Your task to perform on an android device: turn off airplane mode Image 0: 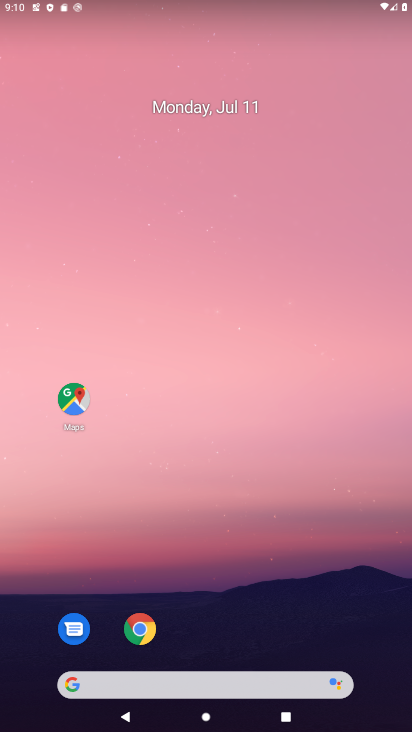
Step 0: drag from (85, 573) to (409, 168)
Your task to perform on an android device: turn off airplane mode Image 1: 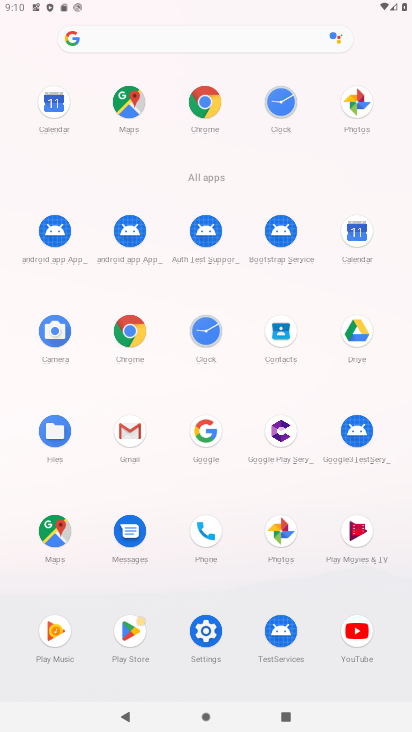
Step 1: click (198, 641)
Your task to perform on an android device: turn off airplane mode Image 2: 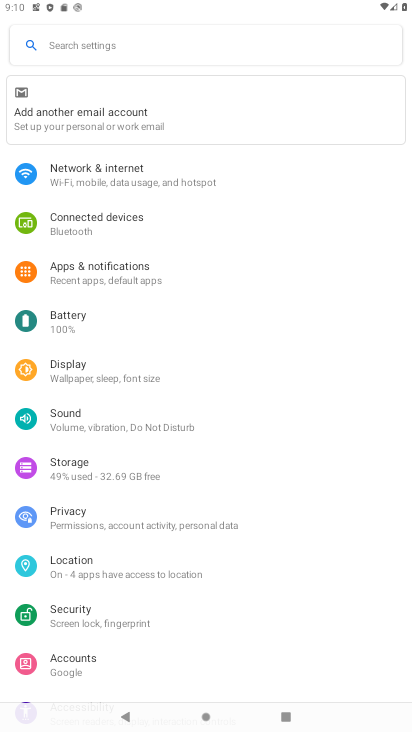
Step 2: click (110, 166)
Your task to perform on an android device: turn off airplane mode Image 3: 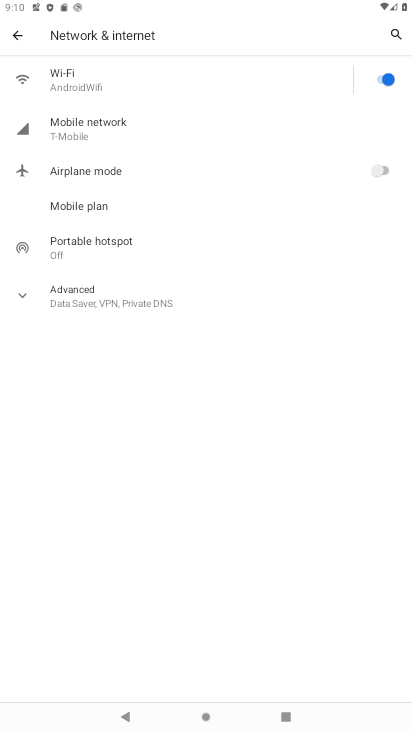
Step 3: click (60, 293)
Your task to perform on an android device: turn off airplane mode Image 4: 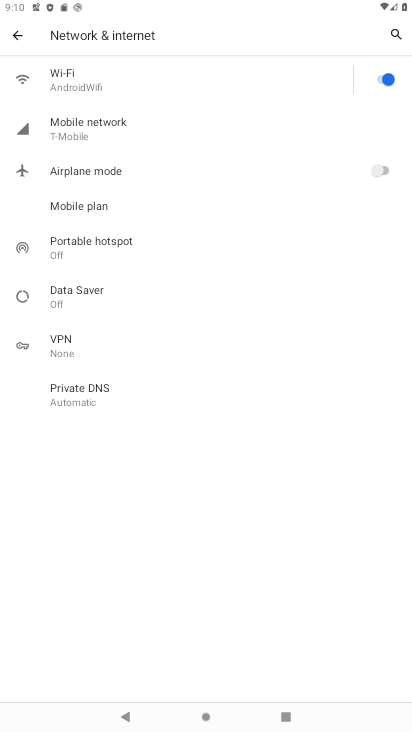
Step 4: task complete